Your task to perform on an android device: open sync settings in chrome Image 0: 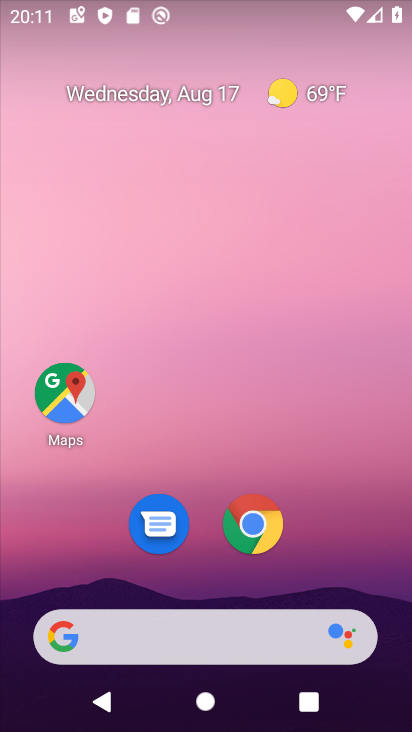
Step 0: click (255, 524)
Your task to perform on an android device: open sync settings in chrome Image 1: 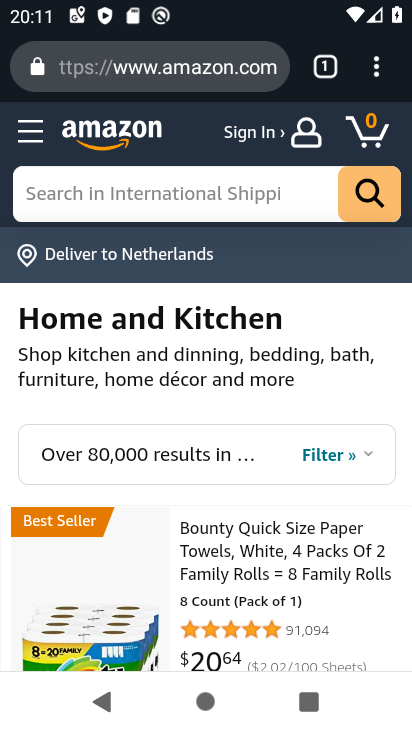
Step 1: click (377, 65)
Your task to perform on an android device: open sync settings in chrome Image 2: 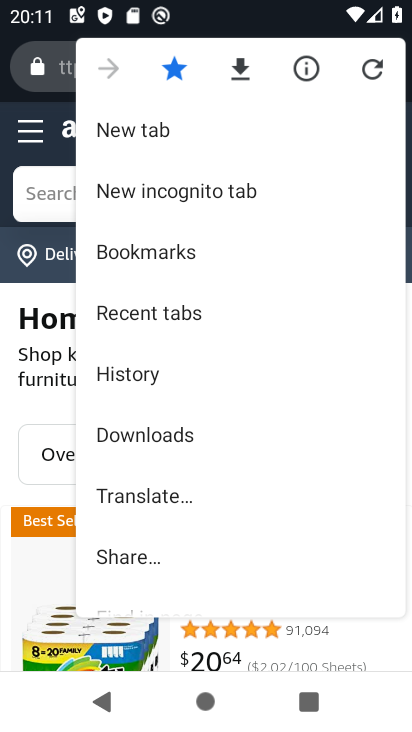
Step 2: drag from (239, 474) to (328, 84)
Your task to perform on an android device: open sync settings in chrome Image 3: 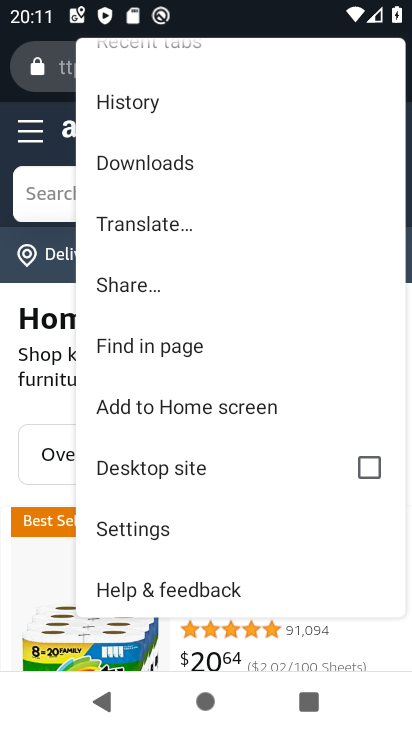
Step 3: click (159, 517)
Your task to perform on an android device: open sync settings in chrome Image 4: 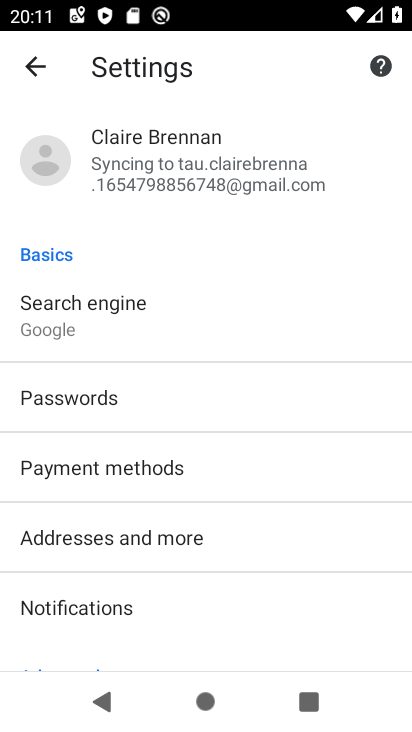
Step 4: click (240, 175)
Your task to perform on an android device: open sync settings in chrome Image 5: 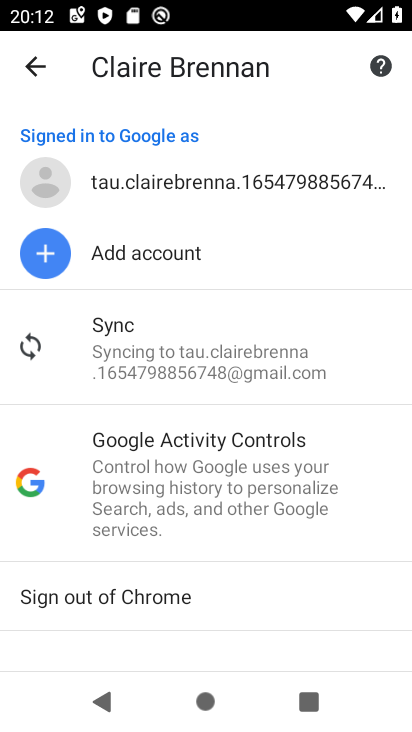
Step 5: click (172, 349)
Your task to perform on an android device: open sync settings in chrome Image 6: 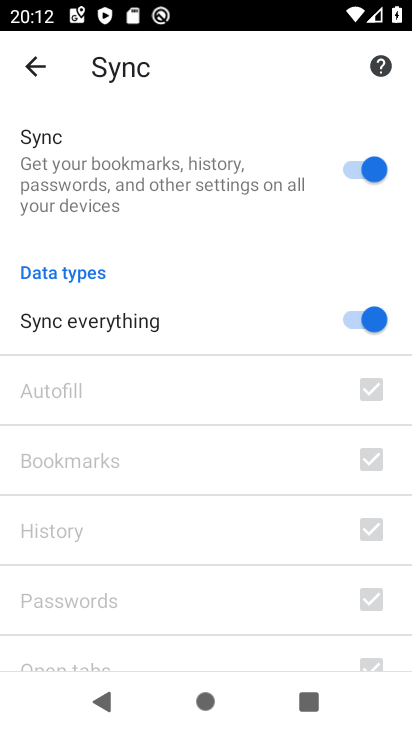
Step 6: task complete